Your task to perform on an android device: open app "Facebook Lite" (install if not already installed) Image 0: 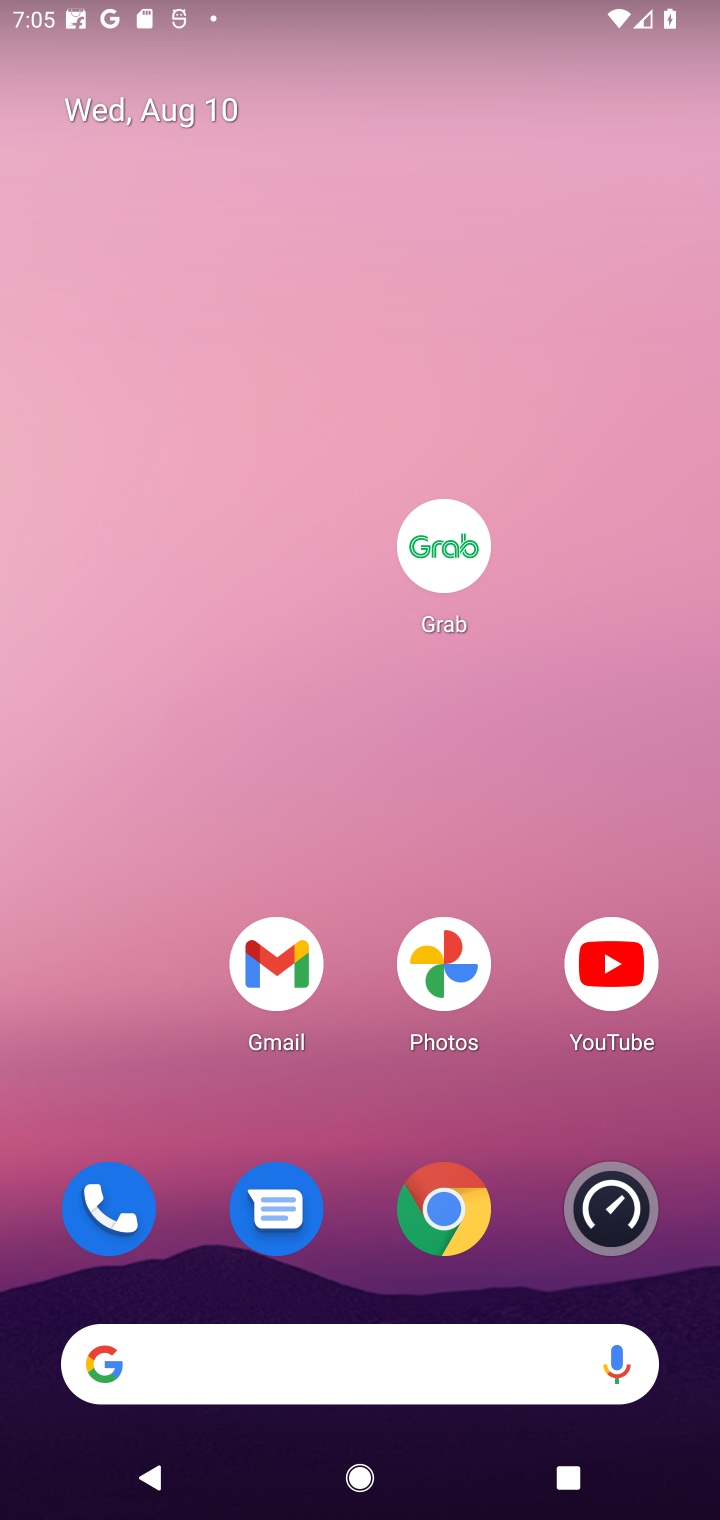
Step 0: drag from (351, 1275) to (334, 96)
Your task to perform on an android device: open app "Facebook Lite" (install if not already installed) Image 1: 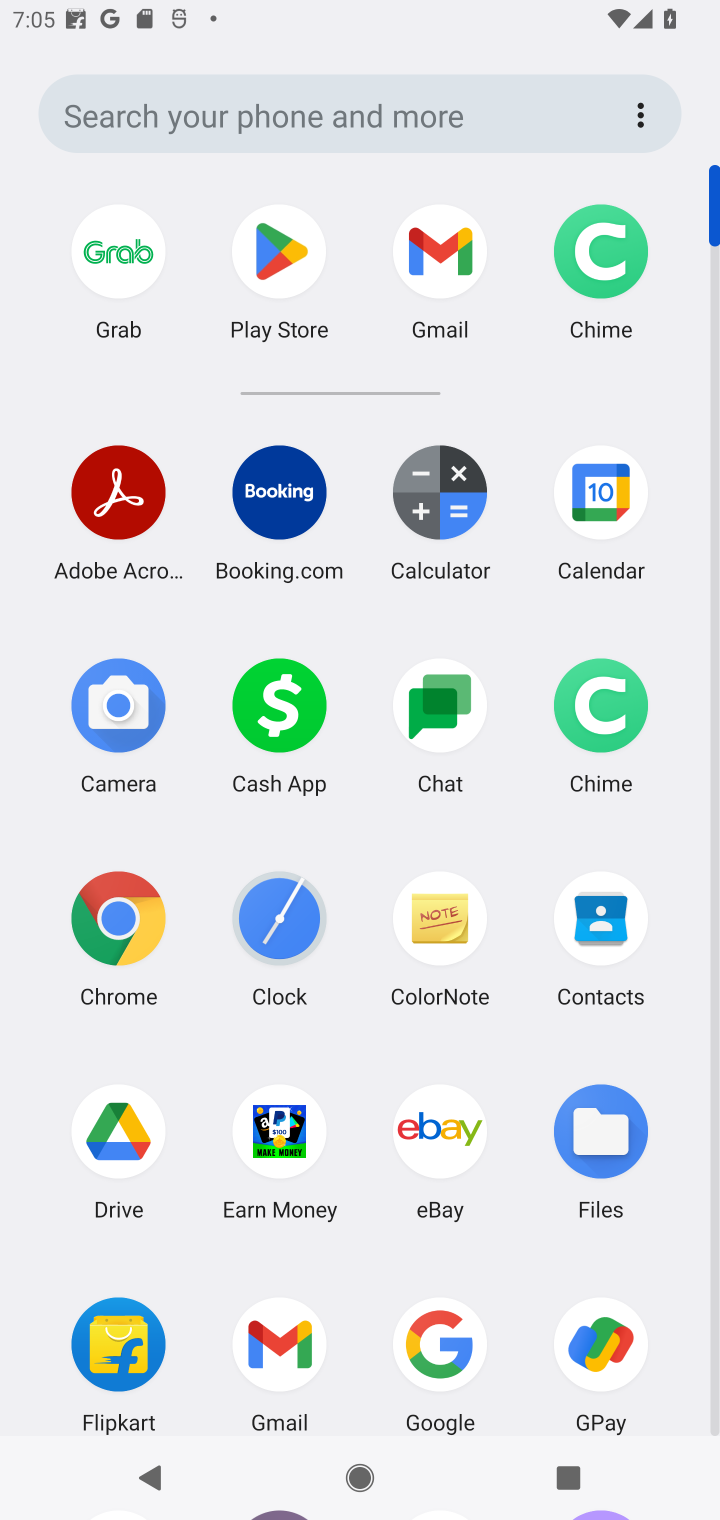
Step 1: click (280, 258)
Your task to perform on an android device: open app "Facebook Lite" (install if not already installed) Image 2: 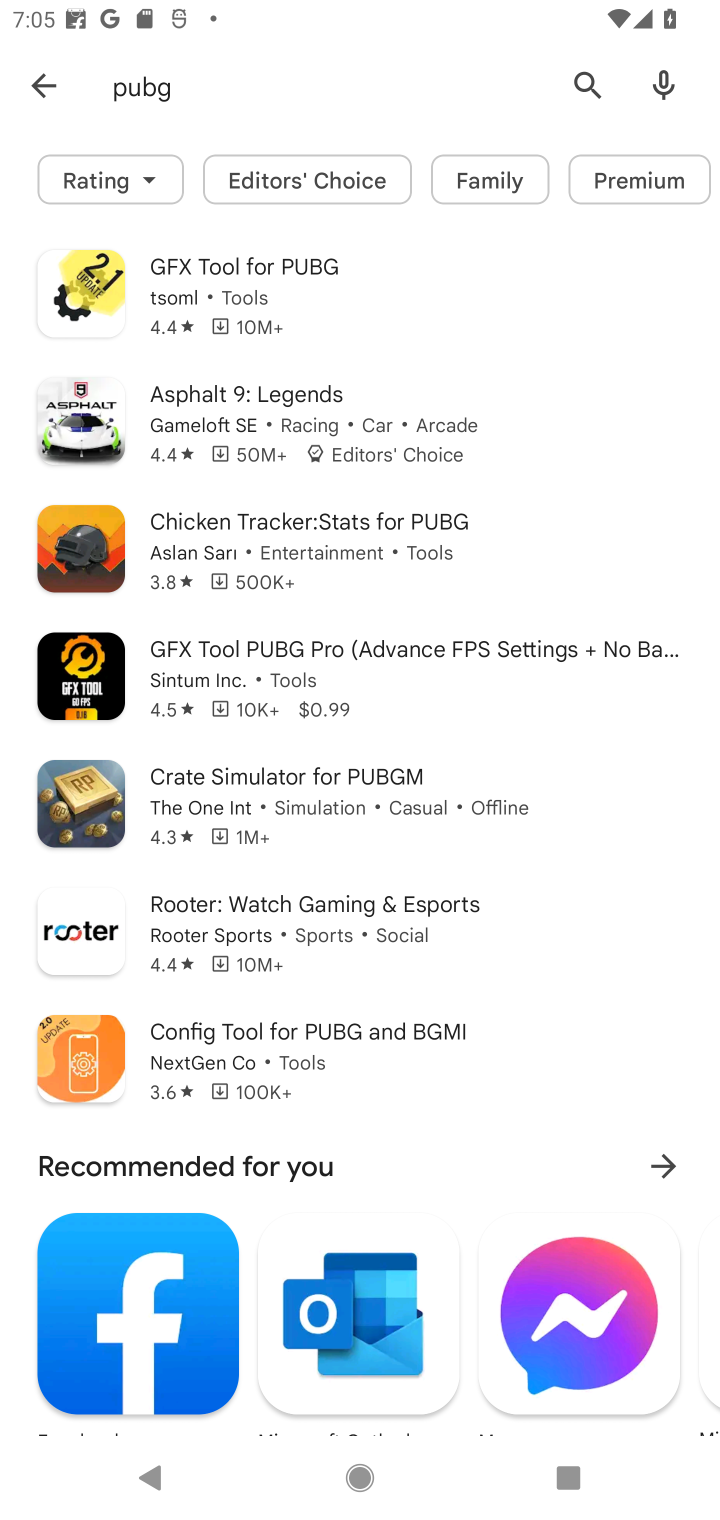
Step 2: click (573, 83)
Your task to perform on an android device: open app "Facebook Lite" (install if not already installed) Image 3: 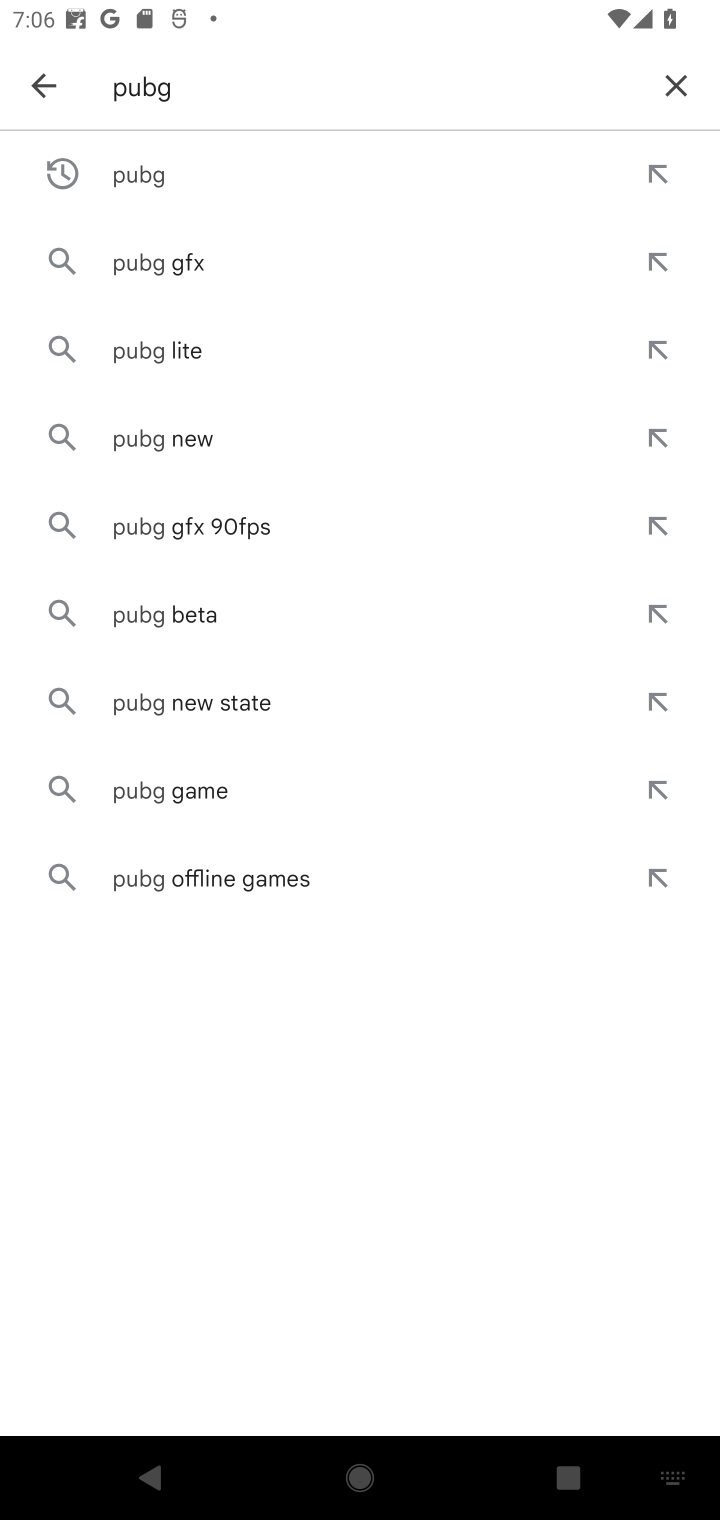
Step 3: click (664, 86)
Your task to perform on an android device: open app "Facebook Lite" (install if not already installed) Image 4: 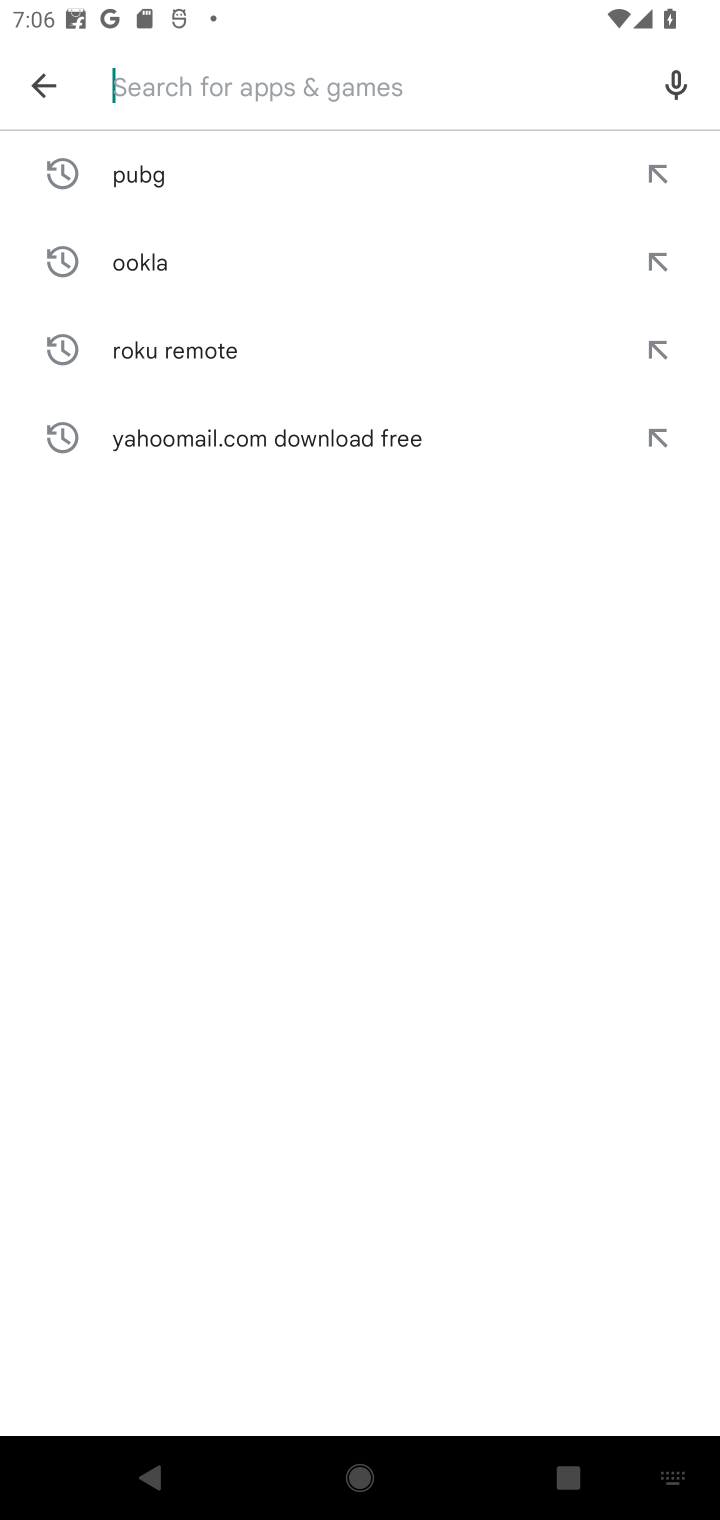
Step 4: type "facebook lite"
Your task to perform on an android device: open app "Facebook Lite" (install if not already installed) Image 5: 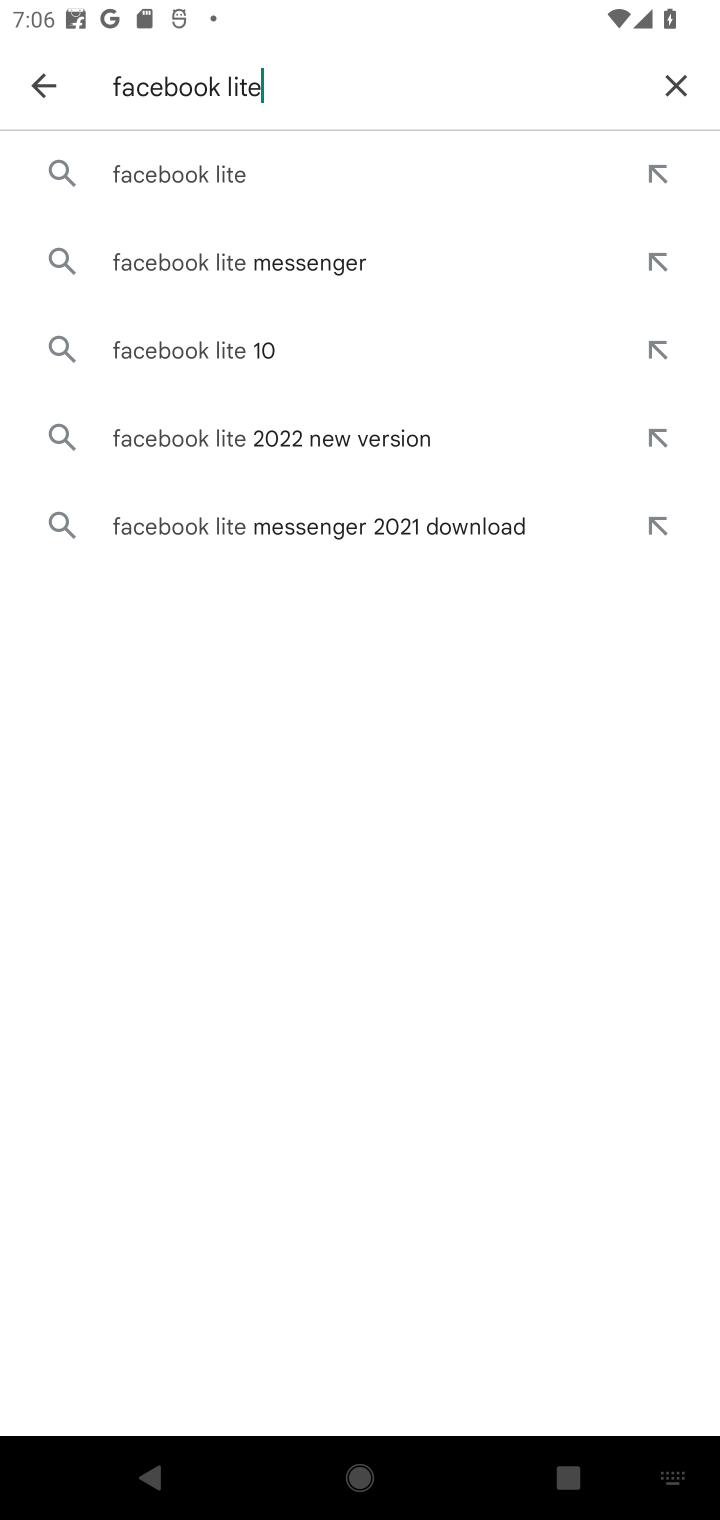
Step 5: click (223, 190)
Your task to perform on an android device: open app "Facebook Lite" (install if not already installed) Image 6: 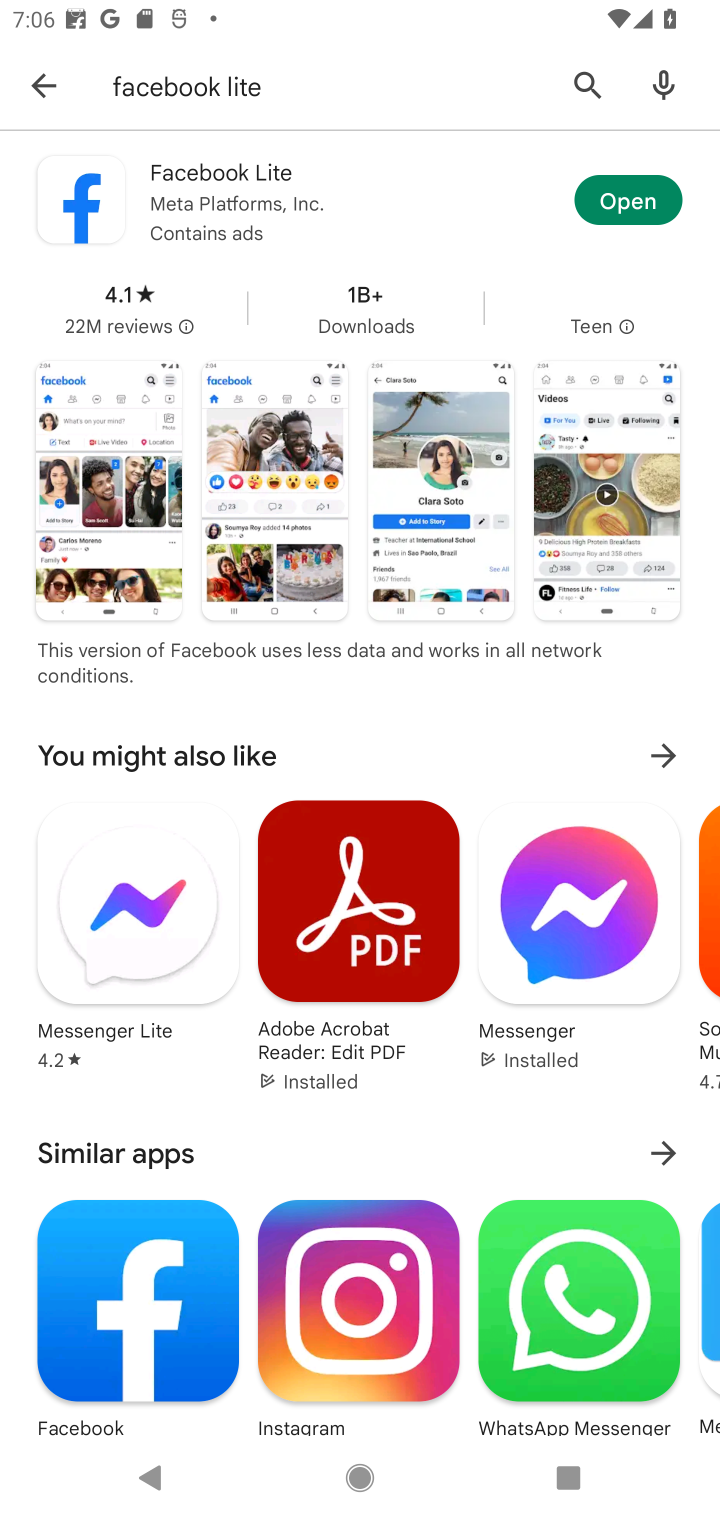
Step 6: click (612, 199)
Your task to perform on an android device: open app "Facebook Lite" (install if not already installed) Image 7: 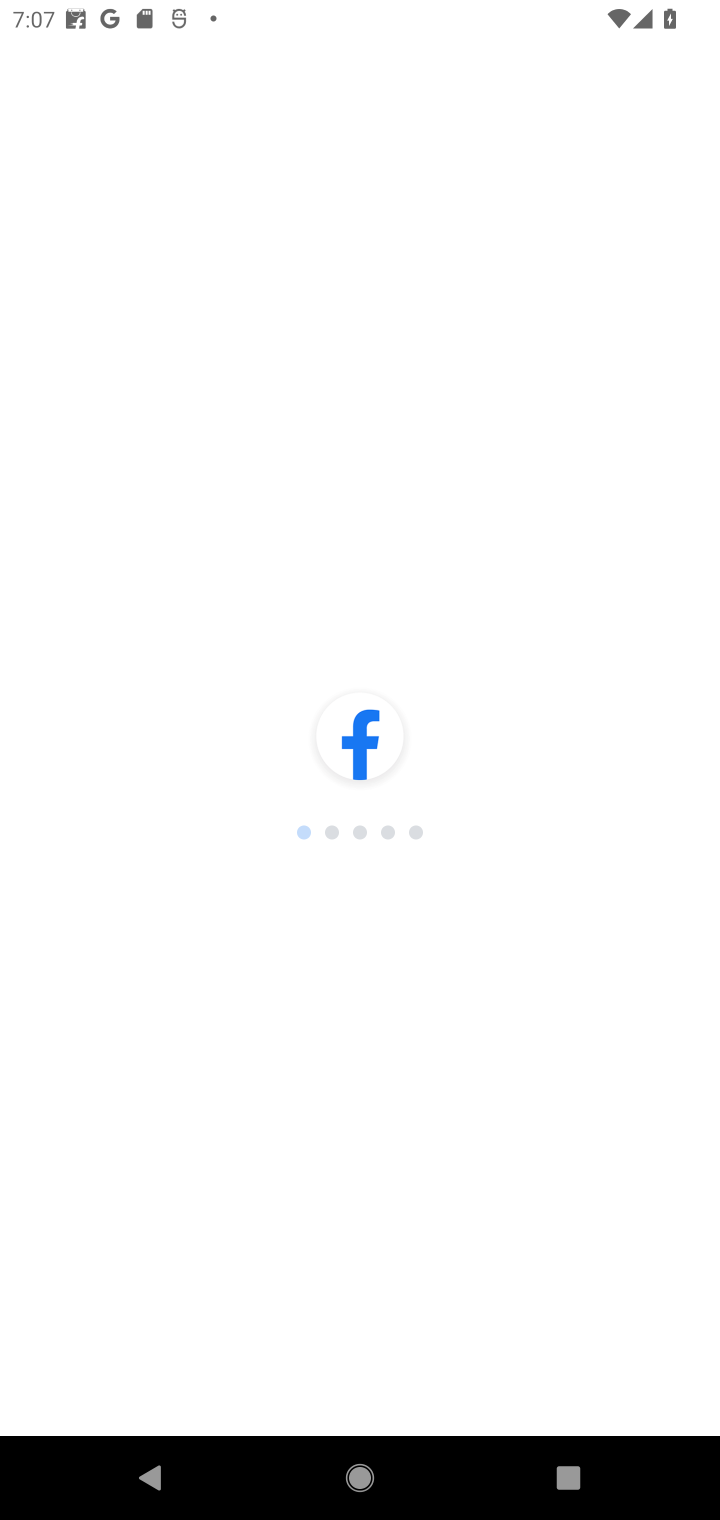
Step 7: task complete